Your task to perform on an android device: toggle location history Image 0: 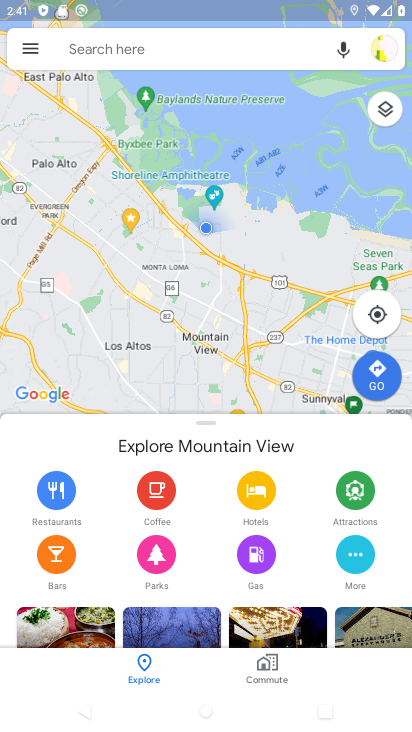
Step 0: click (29, 40)
Your task to perform on an android device: toggle location history Image 1: 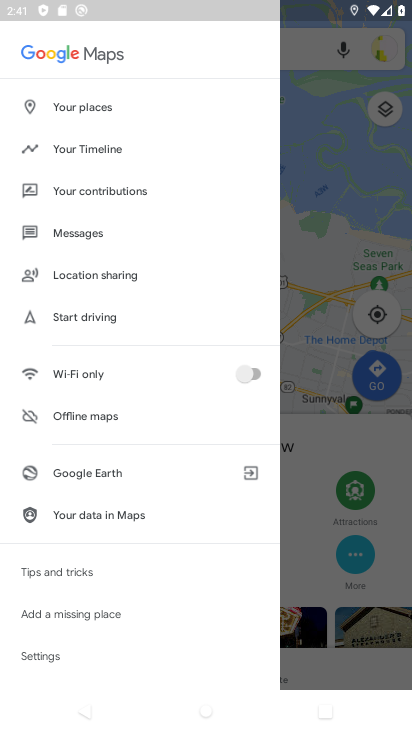
Step 1: click (83, 145)
Your task to perform on an android device: toggle location history Image 2: 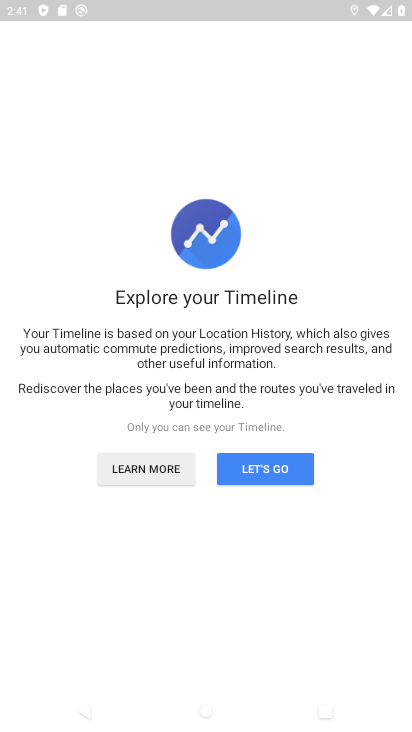
Step 2: click (270, 475)
Your task to perform on an android device: toggle location history Image 3: 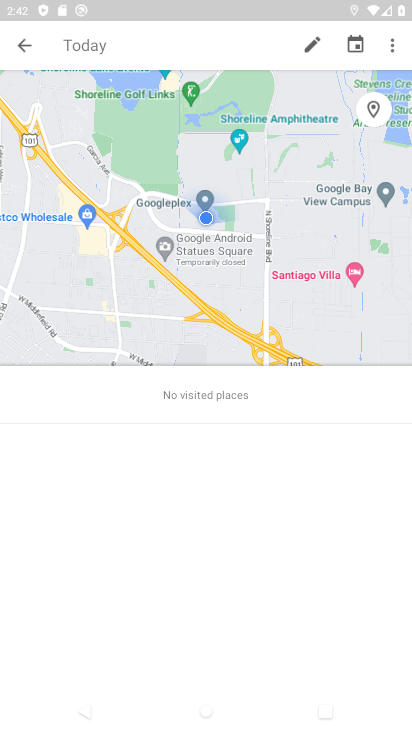
Step 3: click (389, 48)
Your task to perform on an android device: toggle location history Image 4: 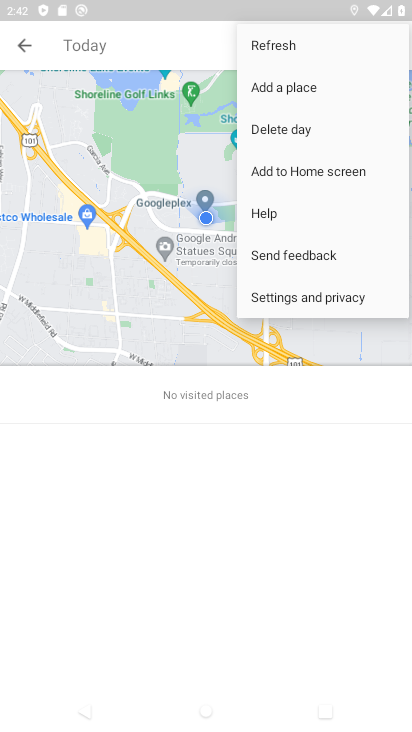
Step 4: click (312, 289)
Your task to perform on an android device: toggle location history Image 5: 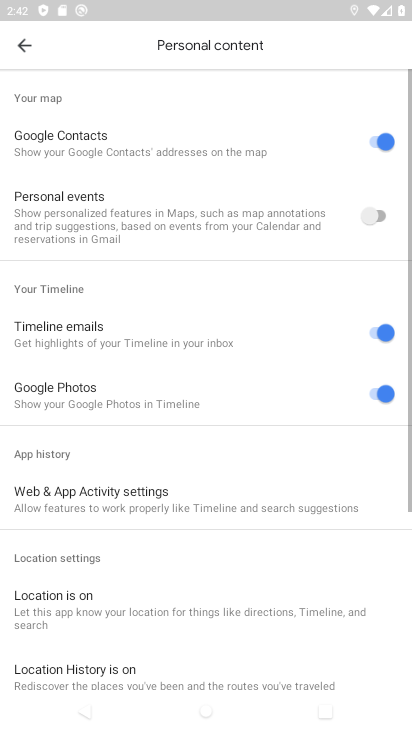
Step 5: drag from (267, 497) to (298, 146)
Your task to perform on an android device: toggle location history Image 6: 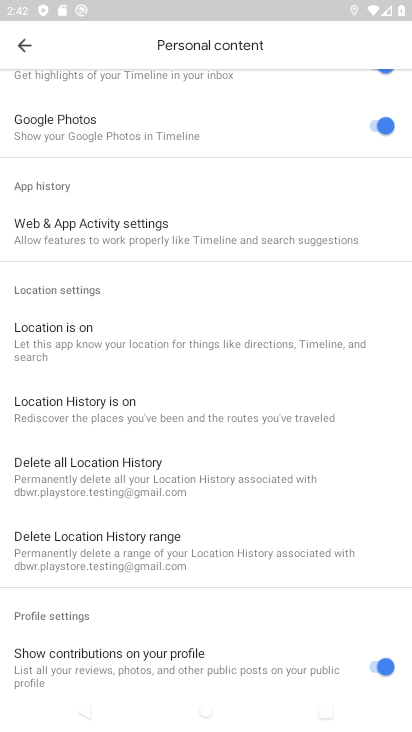
Step 6: click (97, 397)
Your task to perform on an android device: toggle location history Image 7: 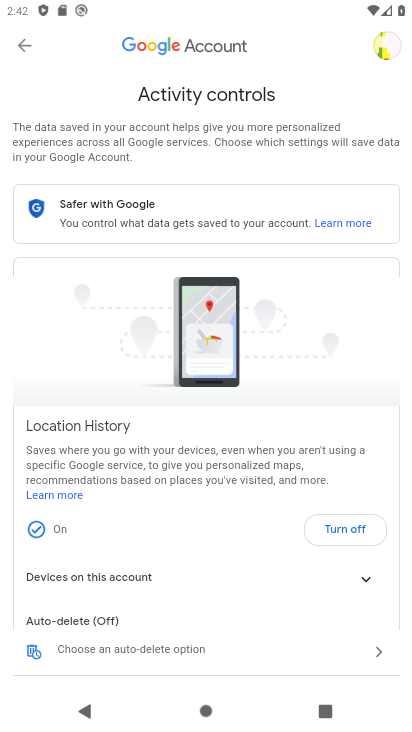
Step 7: click (338, 529)
Your task to perform on an android device: toggle location history Image 8: 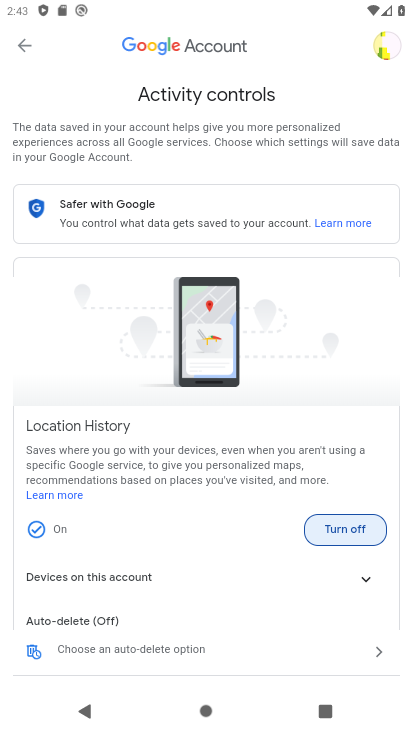
Step 8: click (368, 529)
Your task to perform on an android device: toggle location history Image 9: 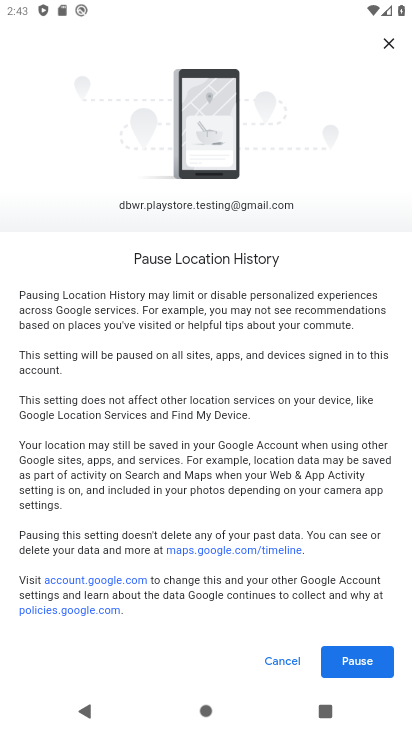
Step 9: click (361, 663)
Your task to perform on an android device: toggle location history Image 10: 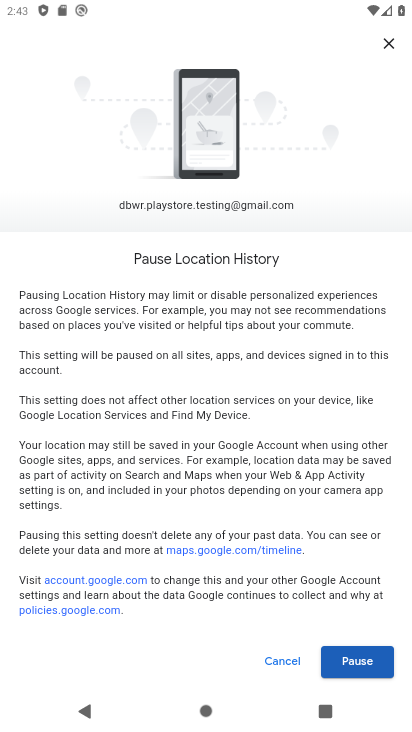
Step 10: click (362, 661)
Your task to perform on an android device: toggle location history Image 11: 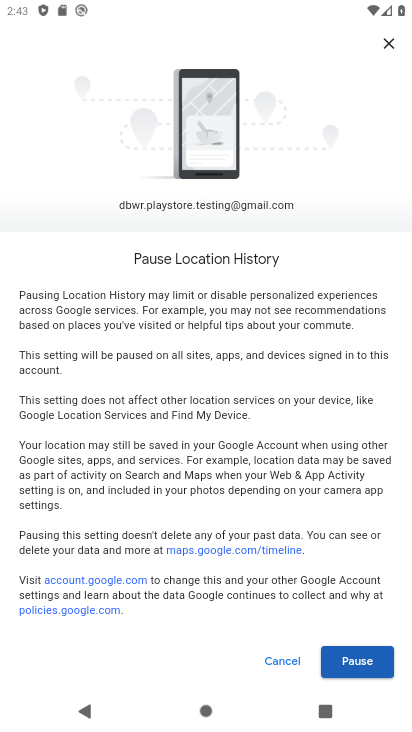
Step 11: click (357, 655)
Your task to perform on an android device: toggle location history Image 12: 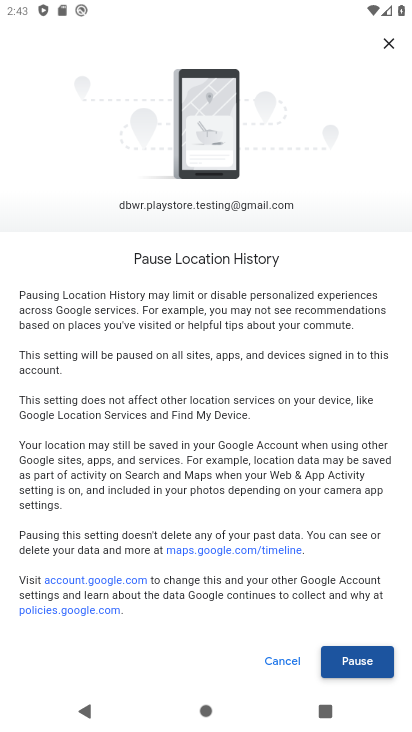
Step 12: click (357, 655)
Your task to perform on an android device: toggle location history Image 13: 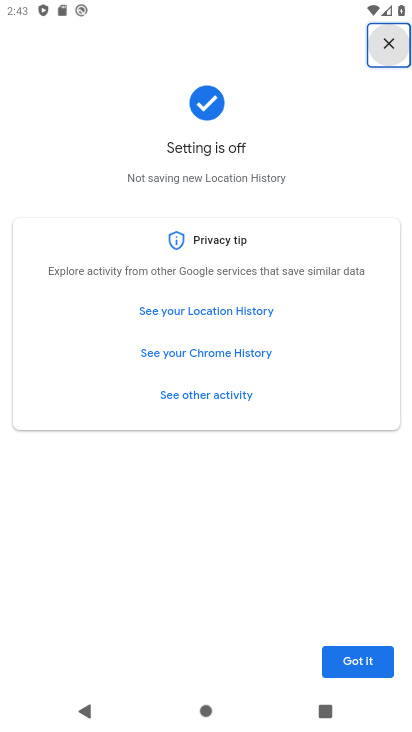
Step 13: click (352, 660)
Your task to perform on an android device: toggle location history Image 14: 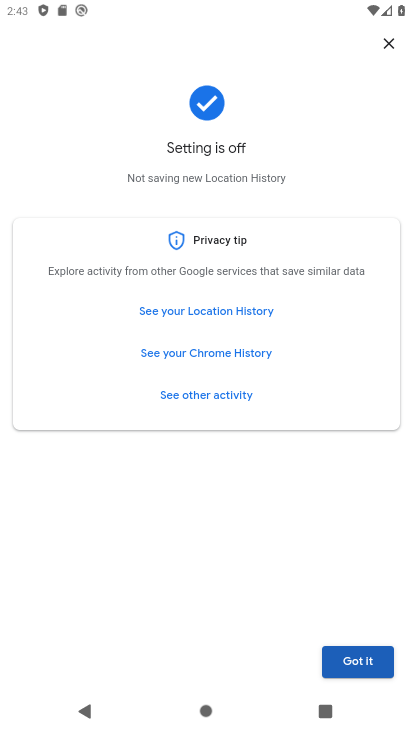
Step 14: click (367, 660)
Your task to perform on an android device: toggle location history Image 15: 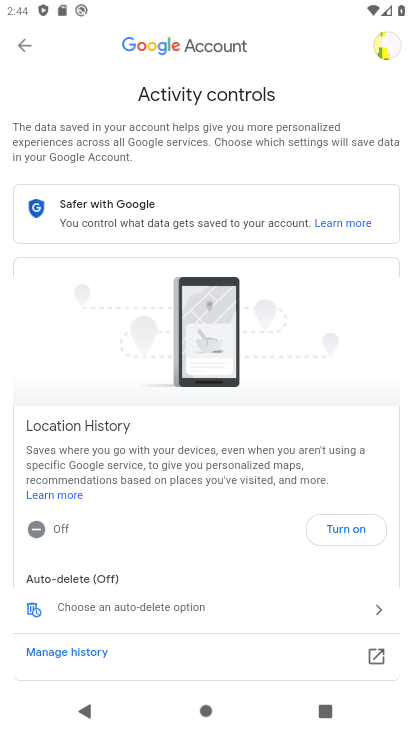
Step 15: task complete